Your task to perform on an android device: toggle sleep mode Image 0: 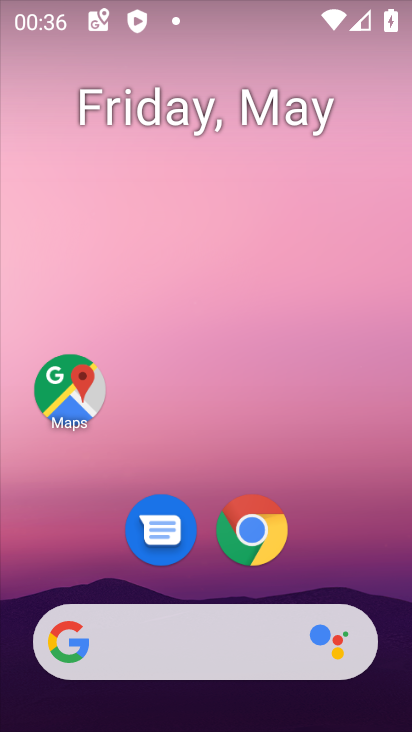
Step 0: drag from (331, 524) to (265, 78)
Your task to perform on an android device: toggle sleep mode Image 1: 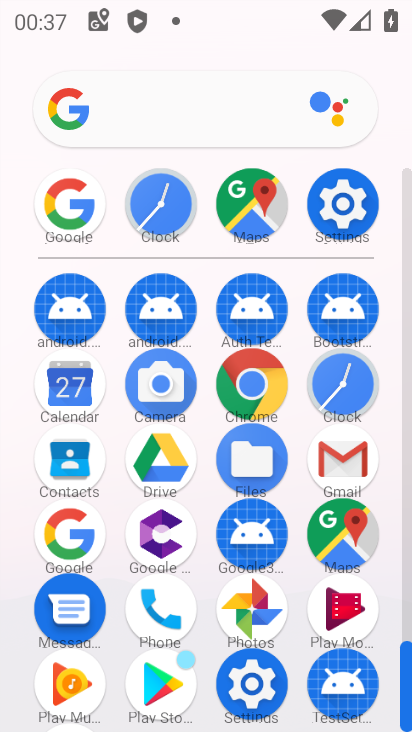
Step 1: click (343, 204)
Your task to perform on an android device: toggle sleep mode Image 2: 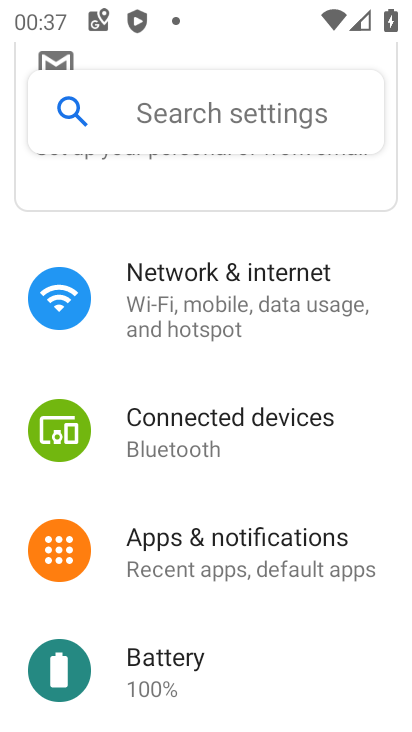
Step 2: drag from (181, 516) to (240, 422)
Your task to perform on an android device: toggle sleep mode Image 3: 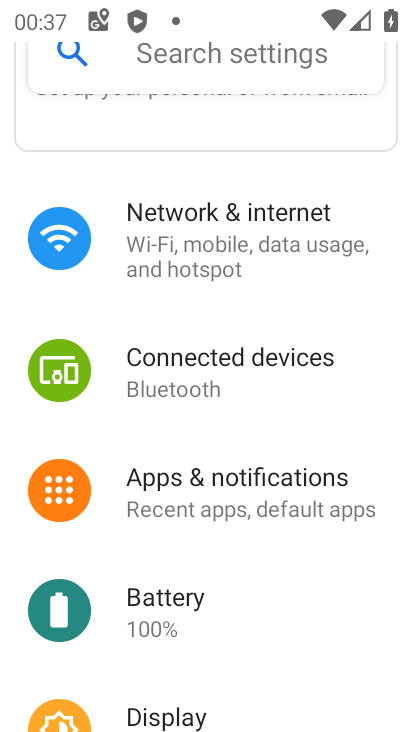
Step 3: drag from (189, 543) to (262, 445)
Your task to perform on an android device: toggle sleep mode Image 4: 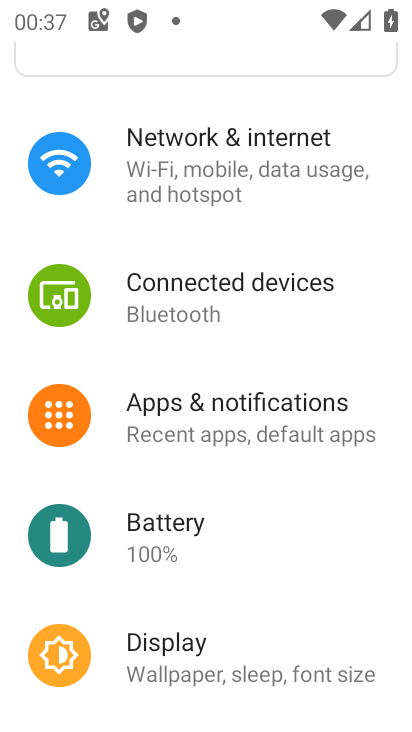
Step 4: drag from (169, 587) to (279, 431)
Your task to perform on an android device: toggle sleep mode Image 5: 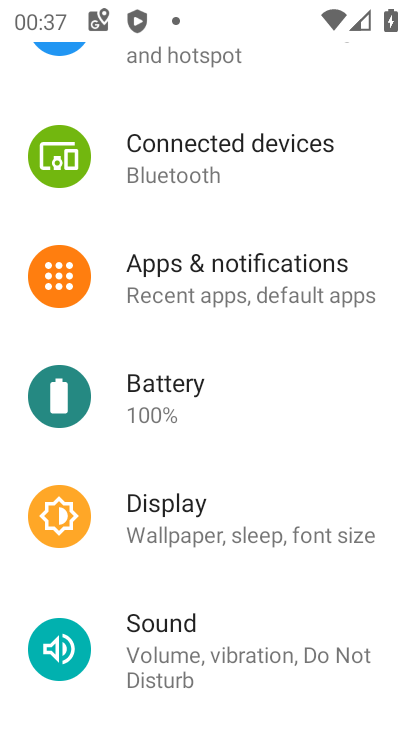
Step 5: click (219, 538)
Your task to perform on an android device: toggle sleep mode Image 6: 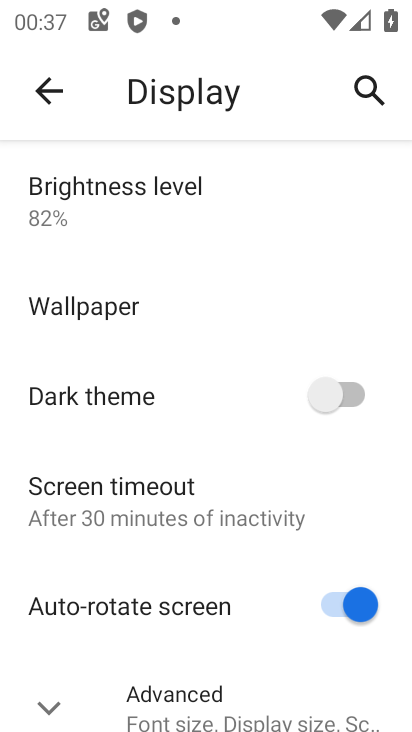
Step 6: click (159, 503)
Your task to perform on an android device: toggle sleep mode Image 7: 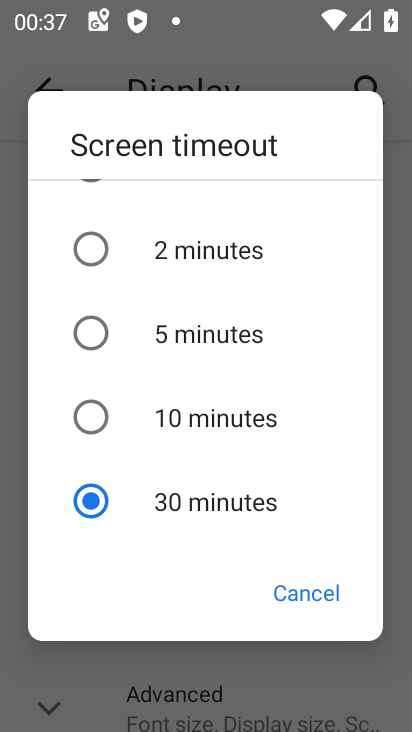
Step 7: drag from (215, 301) to (224, 504)
Your task to perform on an android device: toggle sleep mode Image 8: 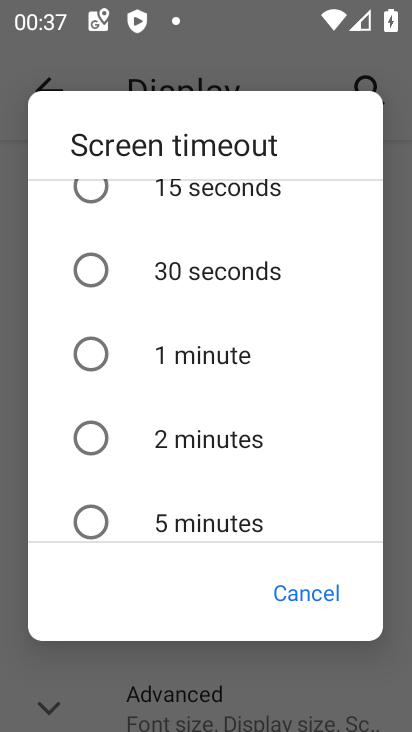
Step 8: drag from (229, 285) to (234, 485)
Your task to perform on an android device: toggle sleep mode Image 9: 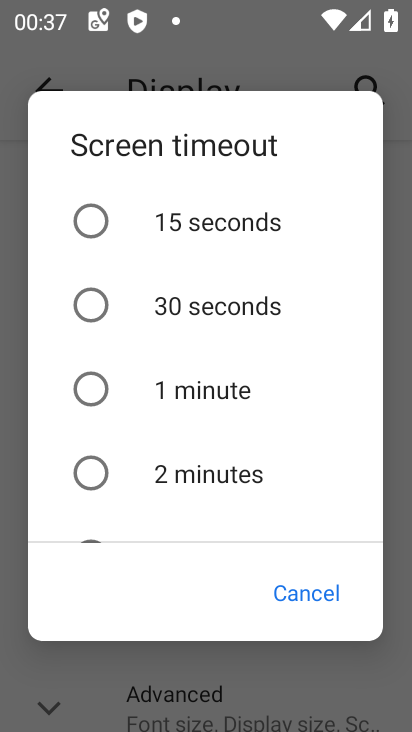
Step 9: click (315, 586)
Your task to perform on an android device: toggle sleep mode Image 10: 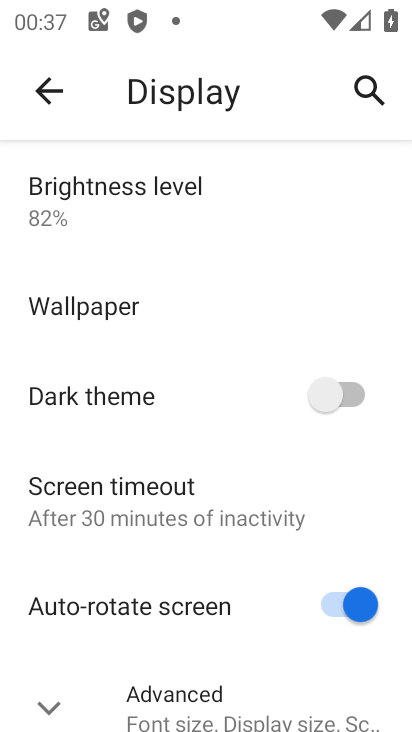
Step 10: drag from (159, 583) to (247, 381)
Your task to perform on an android device: toggle sleep mode Image 11: 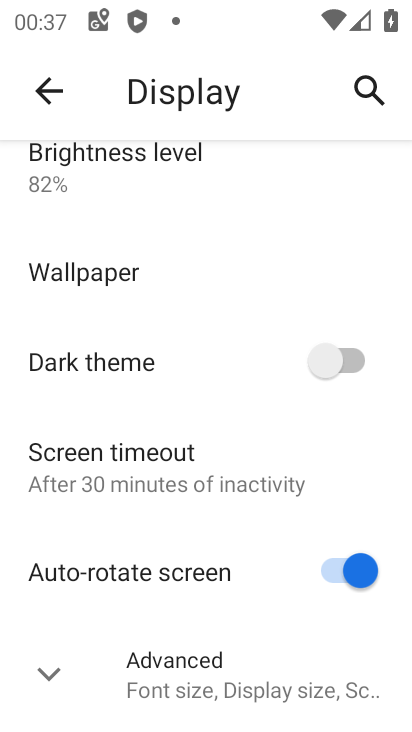
Step 11: click (224, 664)
Your task to perform on an android device: toggle sleep mode Image 12: 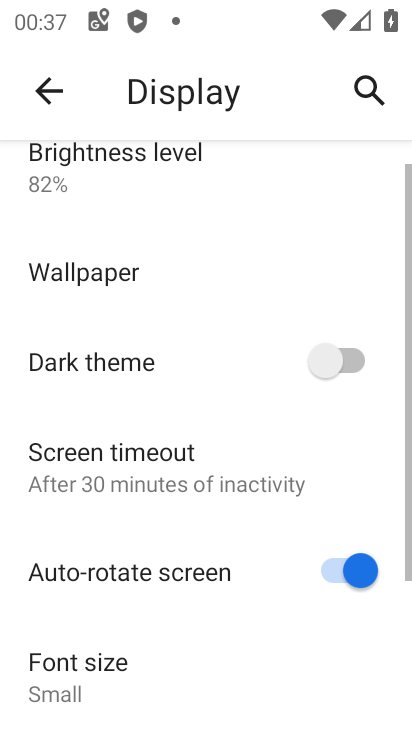
Step 12: drag from (223, 663) to (222, 504)
Your task to perform on an android device: toggle sleep mode Image 13: 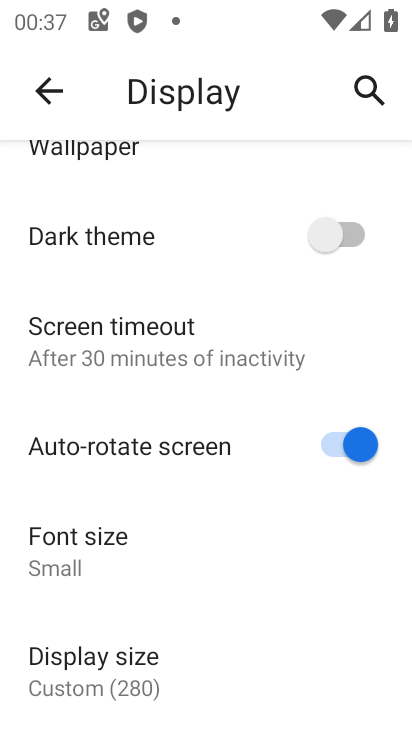
Step 13: drag from (158, 624) to (221, 519)
Your task to perform on an android device: toggle sleep mode Image 14: 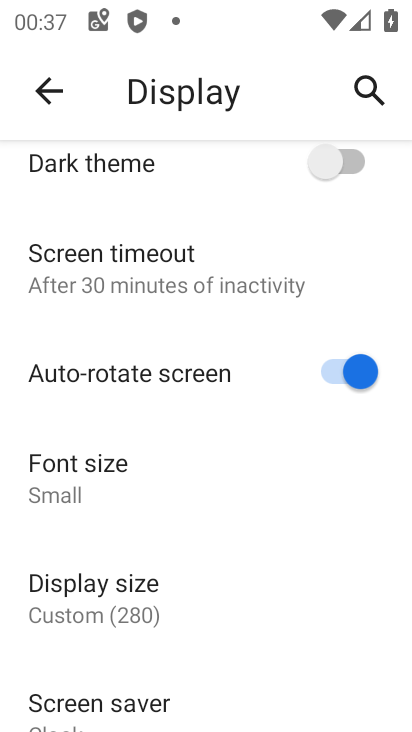
Step 14: drag from (159, 647) to (223, 534)
Your task to perform on an android device: toggle sleep mode Image 15: 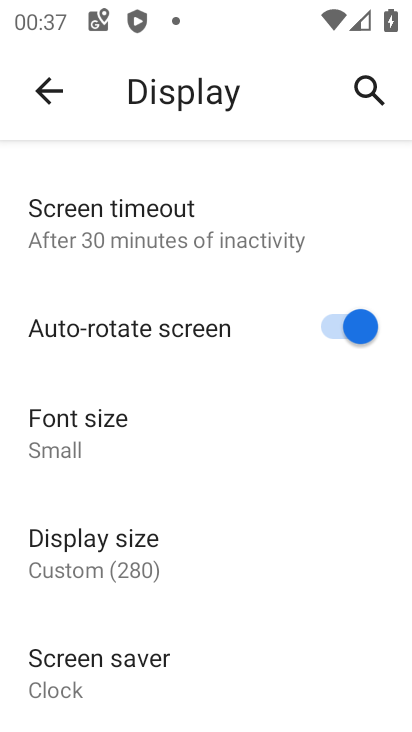
Step 15: click (147, 650)
Your task to perform on an android device: toggle sleep mode Image 16: 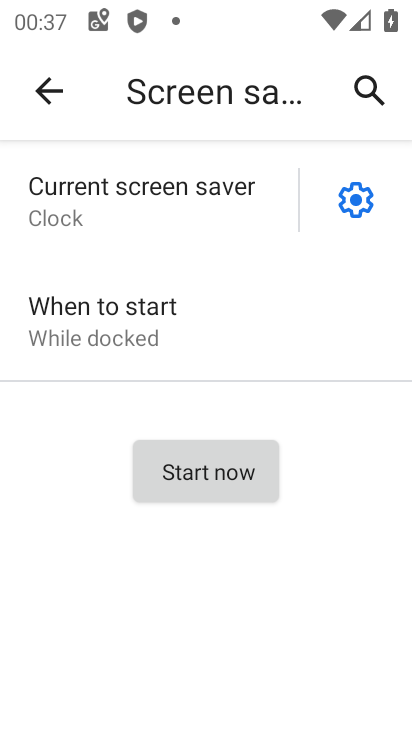
Step 16: click (352, 206)
Your task to perform on an android device: toggle sleep mode Image 17: 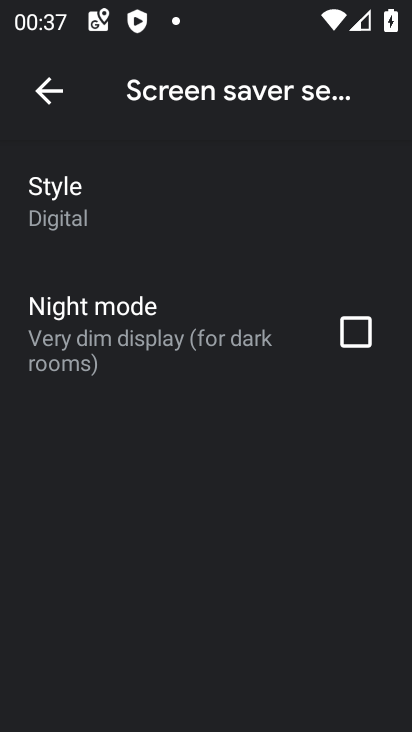
Step 17: click (64, 82)
Your task to perform on an android device: toggle sleep mode Image 18: 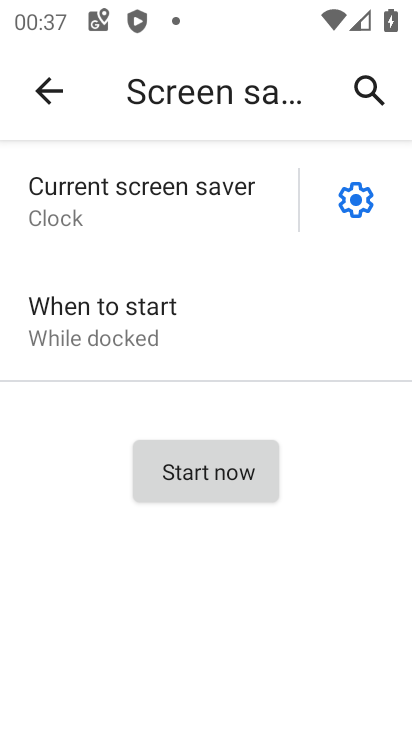
Step 18: task complete